Your task to perform on an android device: Open the phone app and click the voicemail tab. Image 0: 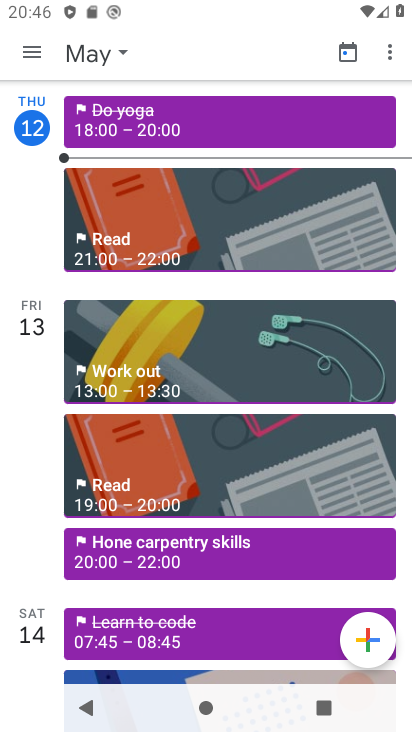
Step 0: press back button
Your task to perform on an android device: Open the phone app and click the voicemail tab. Image 1: 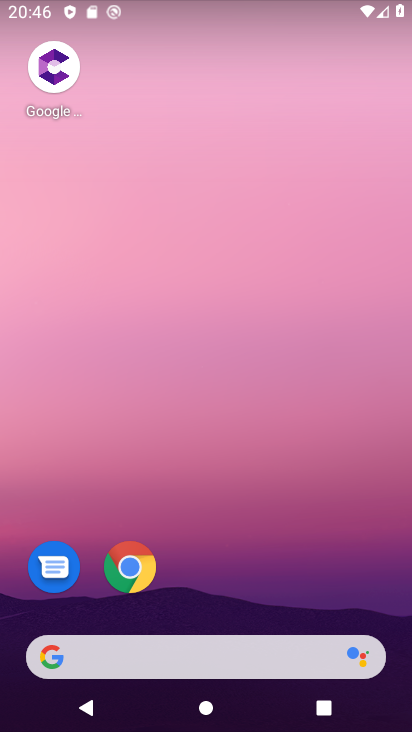
Step 1: drag from (212, 603) to (333, 107)
Your task to perform on an android device: Open the phone app and click the voicemail tab. Image 2: 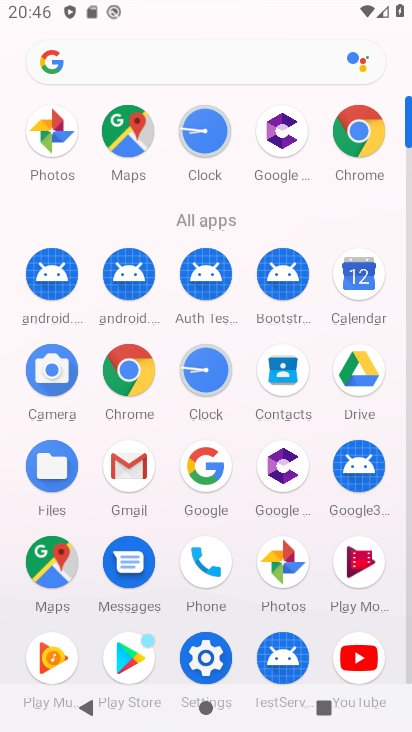
Step 2: click (202, 566)
Your task to perform on an android device: Open the phone app and click the voicemail tab. Image 3: 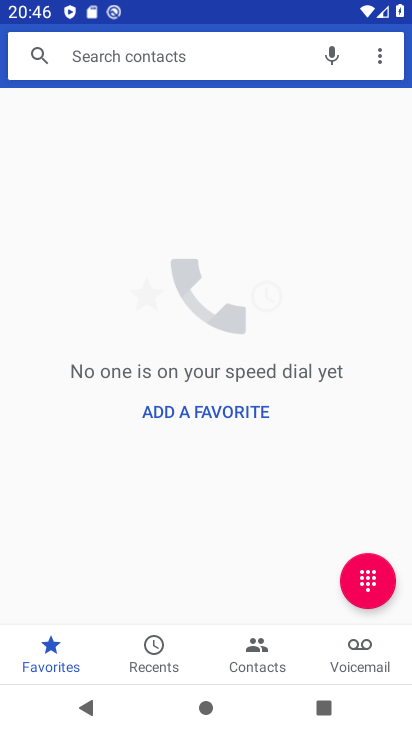
Step 3: click (377, 627)
Your task to perform on an android device: Open the phone app and click the voicemail tab. Image 4: 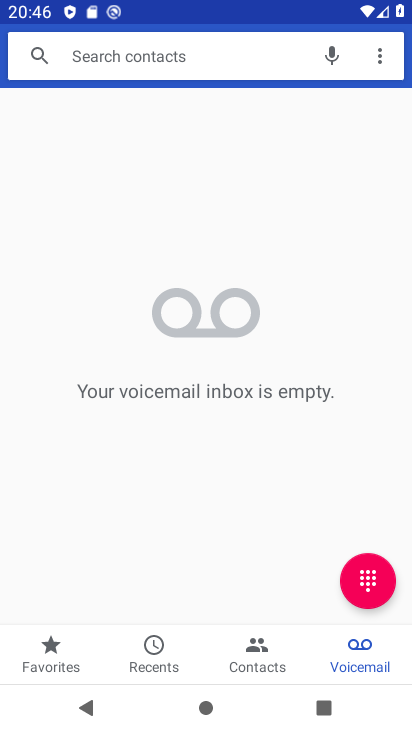
Step 4: task complete